Your task to perform on an android device: turn off notifications settings in the gmail app Image 0: 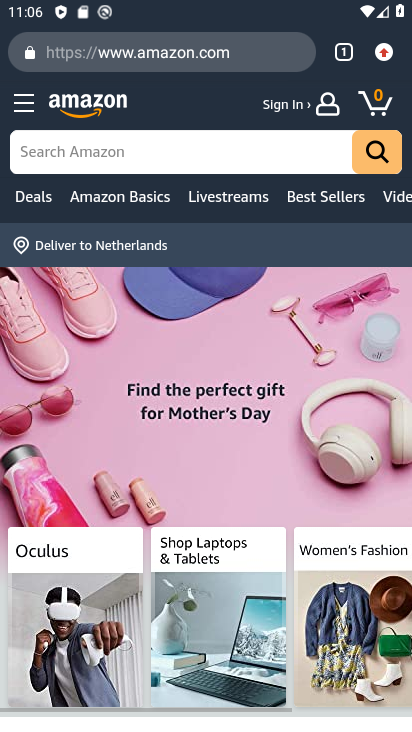
Step 0: press home button
Your task to perform on an android device: turn off notifications settings in the gmail app Image 1: 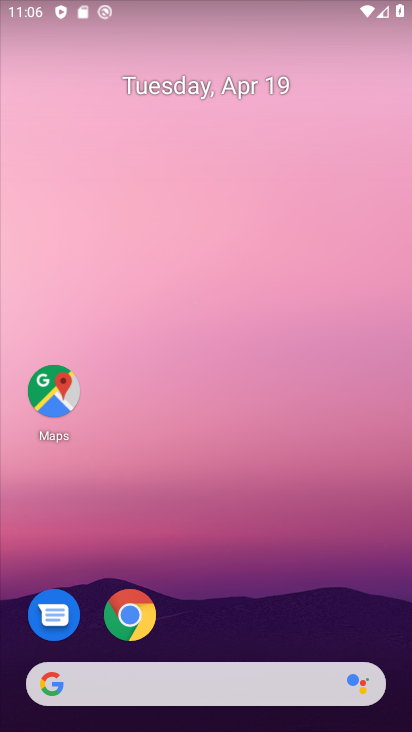
Step 1: drag from (231, 625) to (232, 191)
Your task to perform on an android device: turn off notifications settings in the gmail app Image 2: 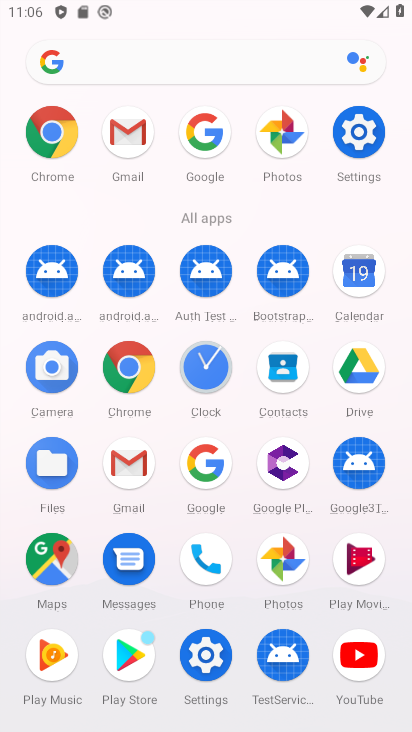
Step 2: click (144, 457)
Your task to perform on an android device: turn off notifications settings in the gmail app Image 3: 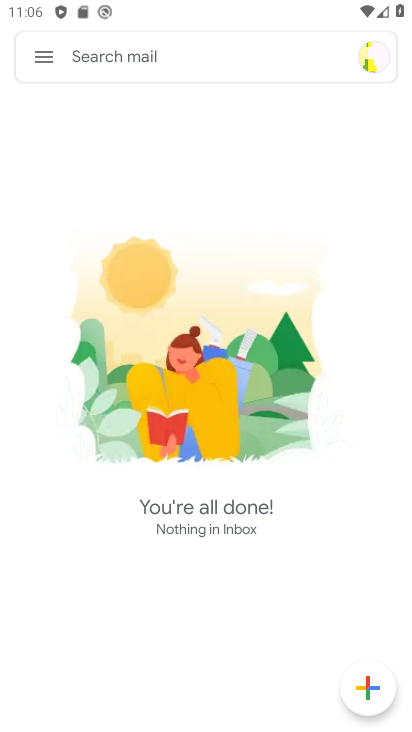
Step 3: click (42, 54)
Your task to perform on an android device: turn off notifications settings in the gmail app Image 4: 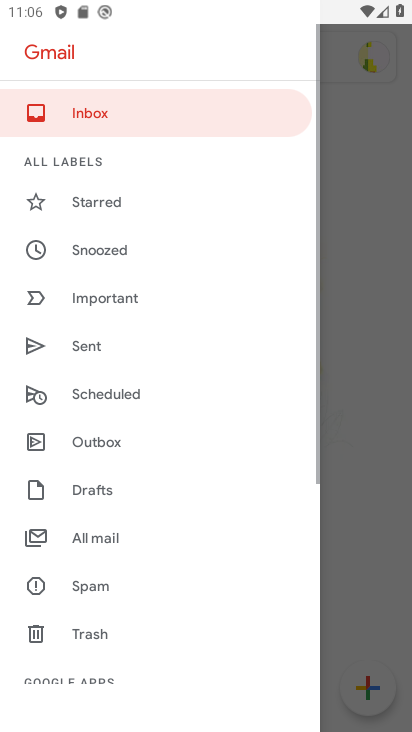
Step 4: drag from (144, 639) to (144, 219)
Your task to perform on an android device: turn off notifications settings in the gmail app Image 5: 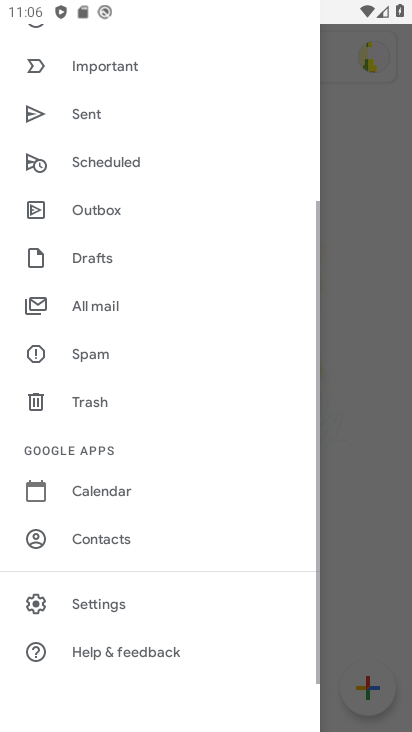
Step 5: click (137, 600)
Your task to perform on an android device: turn off notifications settings in the gmail app Image 6: 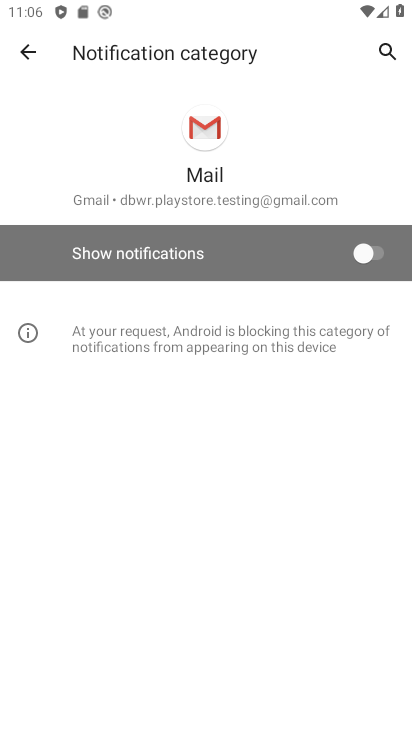
Step 6: task complete